Your task to perform on an android device: Go to Google Image 0: 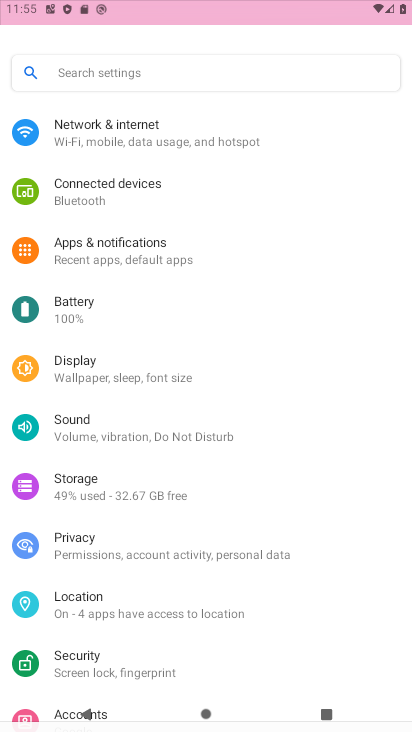
Step 0: click (39, 391)
Your task to perform on an android device: Go to Google Image 1: 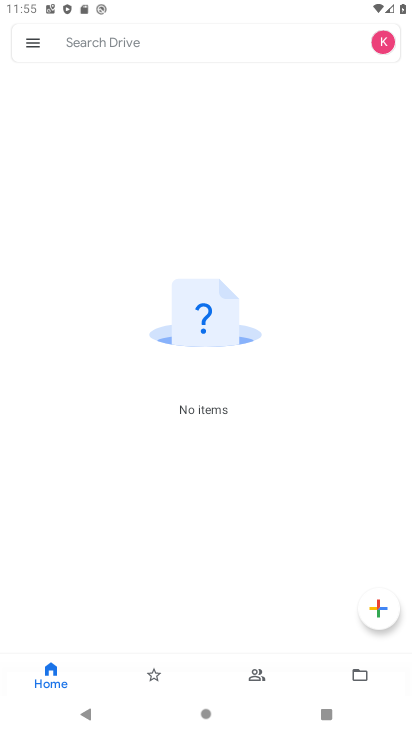
Step 1: press home button
Your task to perform on an android device: Go to Google Image 2: 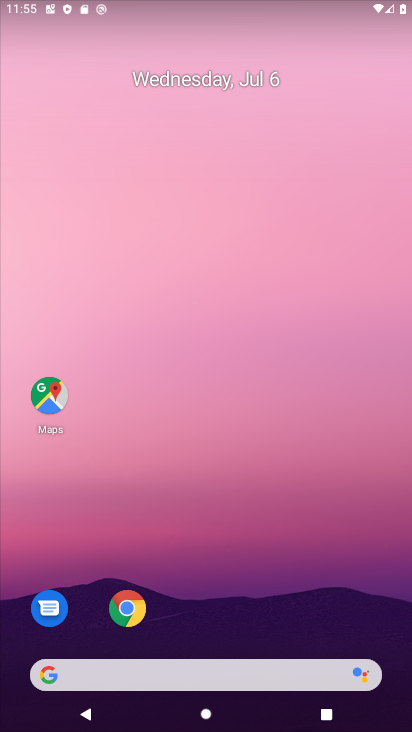
Step 2: drag from (211, 618) to (157, 222)
Your task to perform on an android device: Go to Google Image 3: 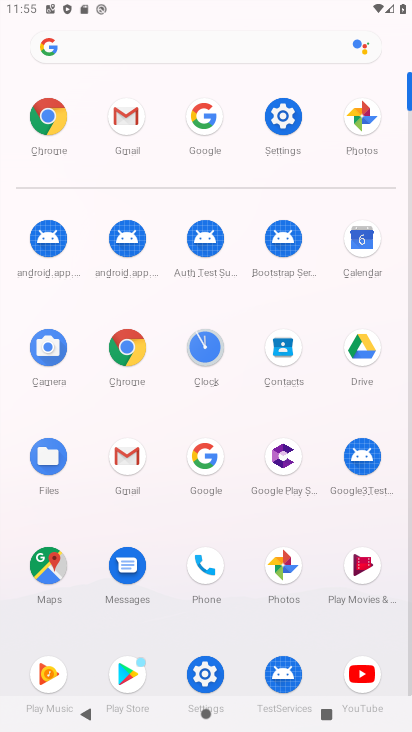
Step 3: click (208, 454)
Your task to perform on an android device: Go to Google Image 4: 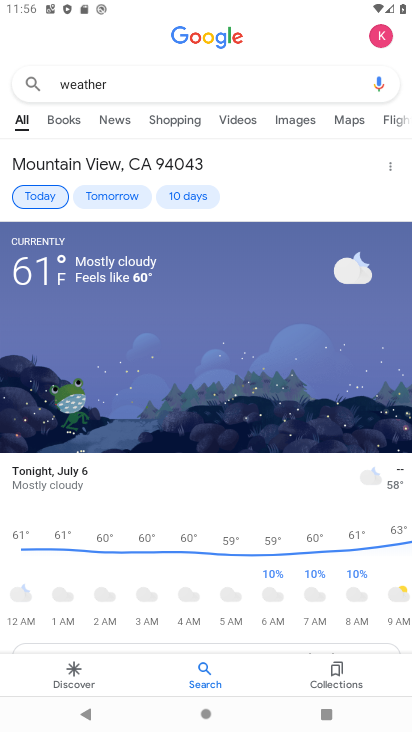
Step 4: task complete